Your task to perform on an android device: set the timer Image 0: 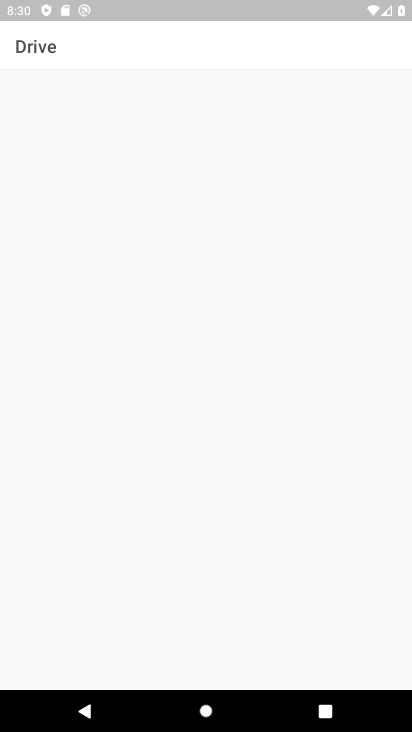
Step 0: press back button
Your task to perform on an android device: set the timer Image 1: 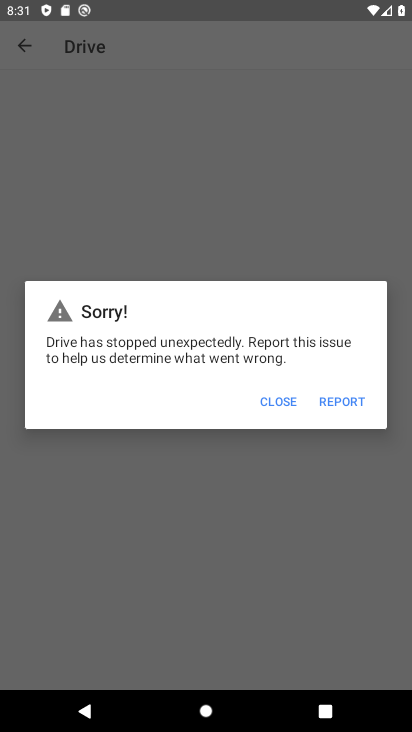
Step 1: press back button
Your task to perform on an android device: set the timer Image 2: 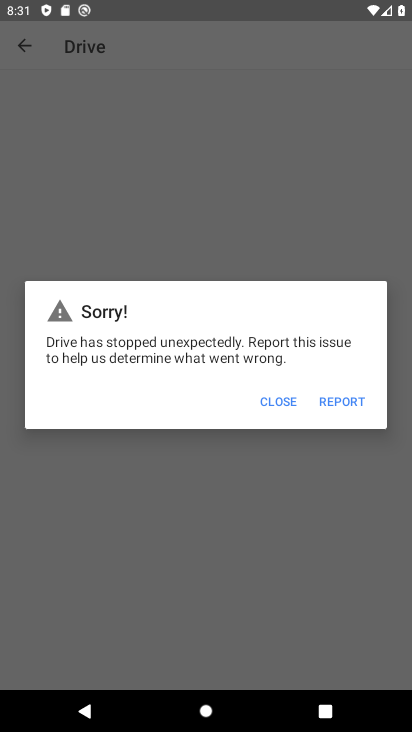
Step 2: press back button
Your task to perform on an android device: set the timer Image 3: 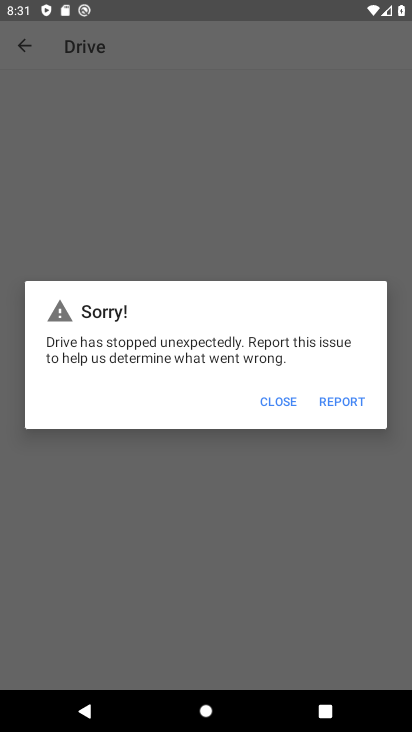
Step 3: press home button
Your task to perform on an android device: set the timer Image 4: 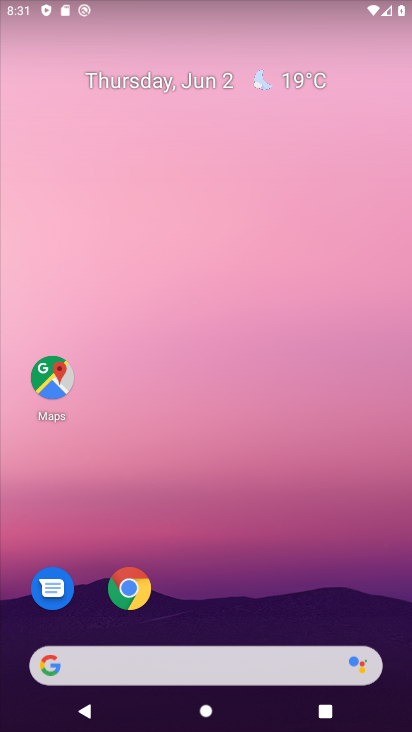
Step 4: drag from (198, 527) to (165, 106)
Your task to perform on an android device: set the timer Image 5: 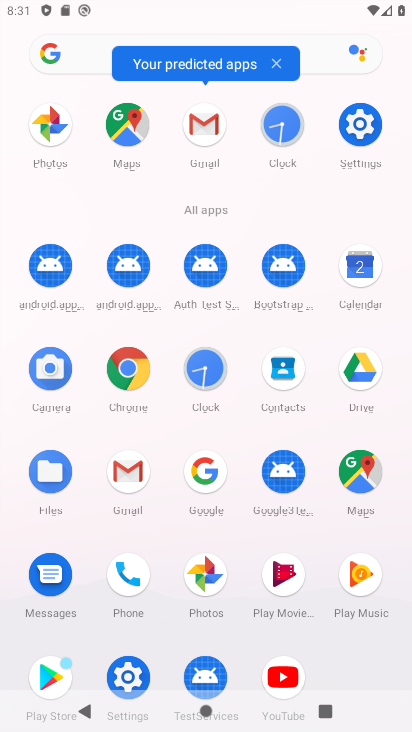
Step 5: click (211, 351)
Your task to perform on an android device: set the timer Image 6: 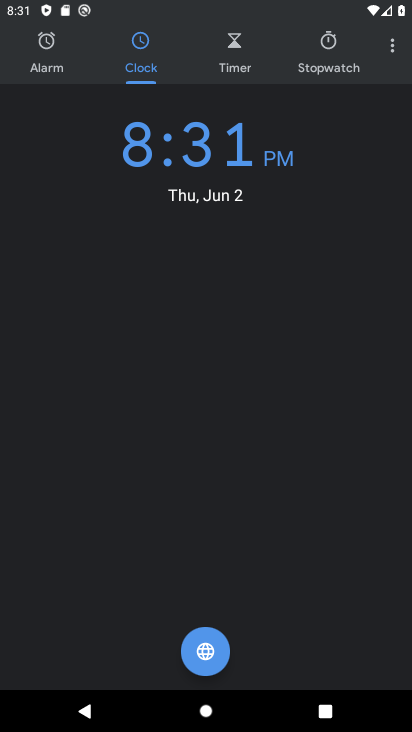
Step 6: click (221, 51)
Your task to perform on an android device: set the timer Image 7: 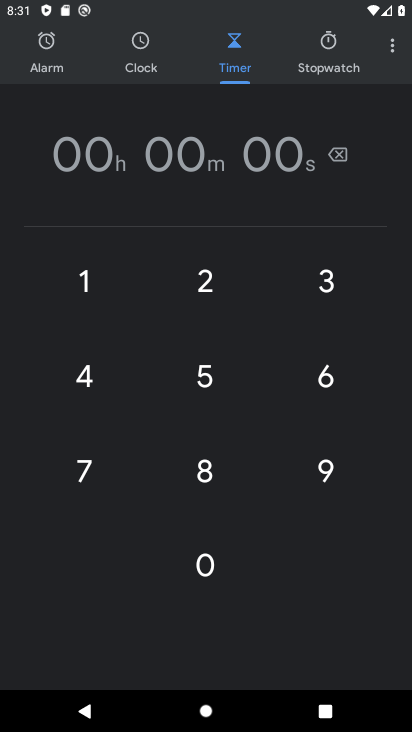
Step 7: click (199, 289)
Your task to perform on an android device: set the timer Image 8: 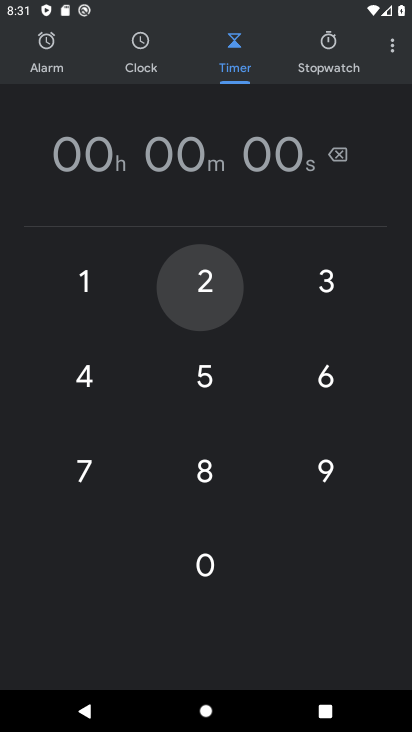
Step 8: click (209, 370)
Your task to perform on an android device: set the timer Image 9: 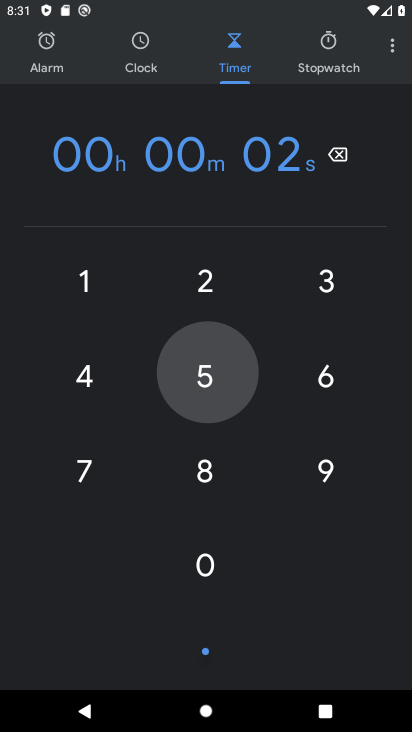
Step 9: click (303, 371)
Your task to perform on an android device: set the timer Image 10: 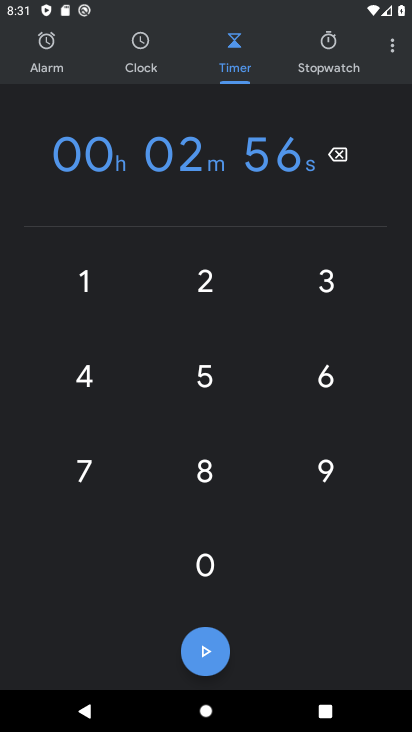
Step 10: click (323, 287)
Your task to perform on an android device: set the timer Image 11: 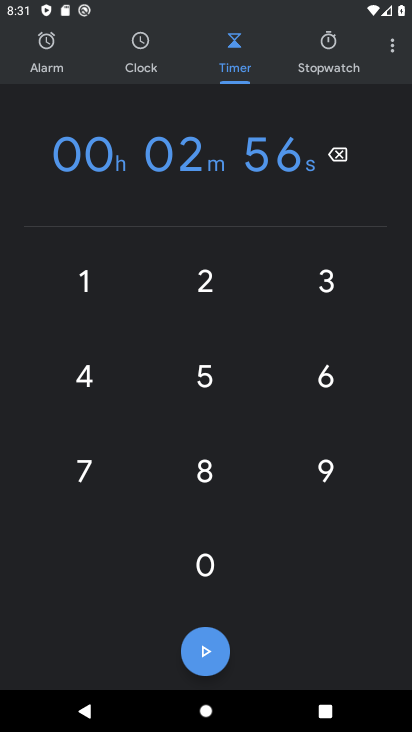
Step 11: click (197, 274)
Your task to perform on an android device: set the timer Image 12: 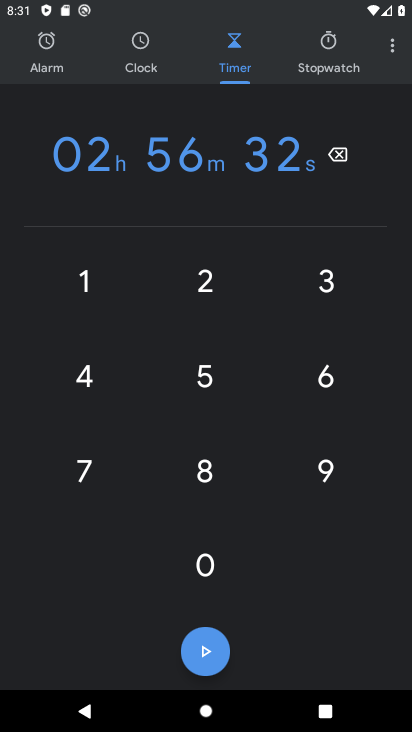
Step 12: click (193, 662)
Your task to perform on an android device: set the timer Image 13: 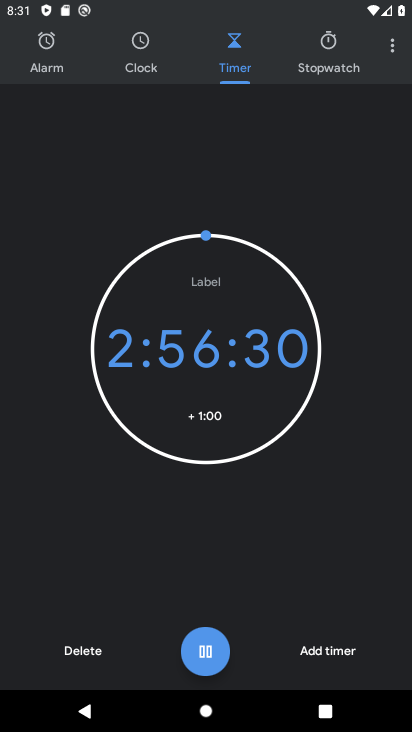
Step 13: task complete